Your task to perform on an android device: show emergency info Image 0: 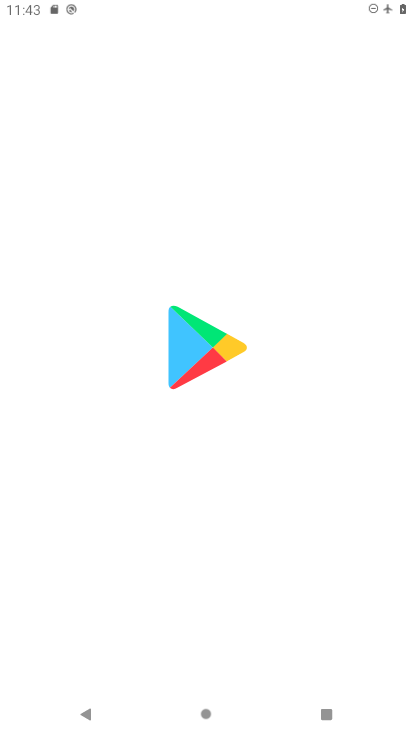
Step 0: drag from (238, 716) to (238, 20)
Your task to perform on an android device: show emergency info Image 1: 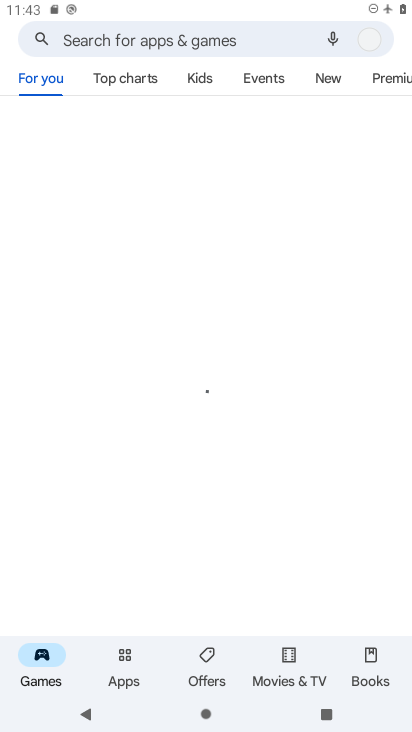
Step 1: press home button
Your task to perform on an android device: show emergency info Image 2: 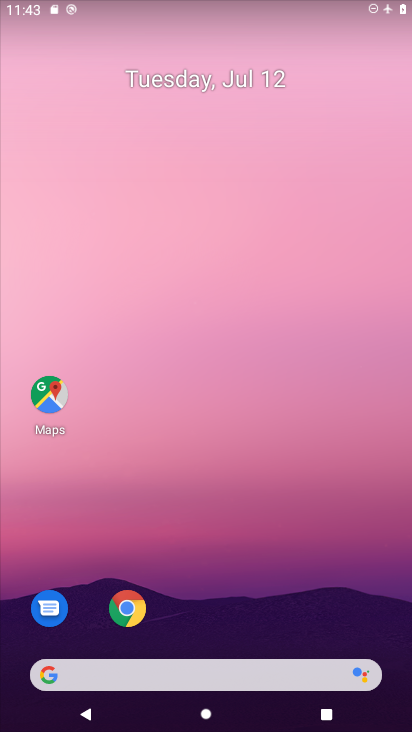
Step 2: drag from (227, 653) to (227, 85)
Your task to perform on an android device: show emergency info Image 3: 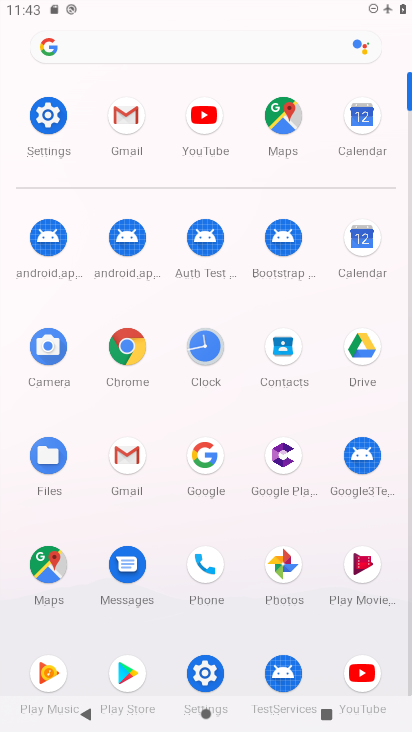
Step 3: click (49, 112)
Your task to perform on an android device: show emergency info Image 4: 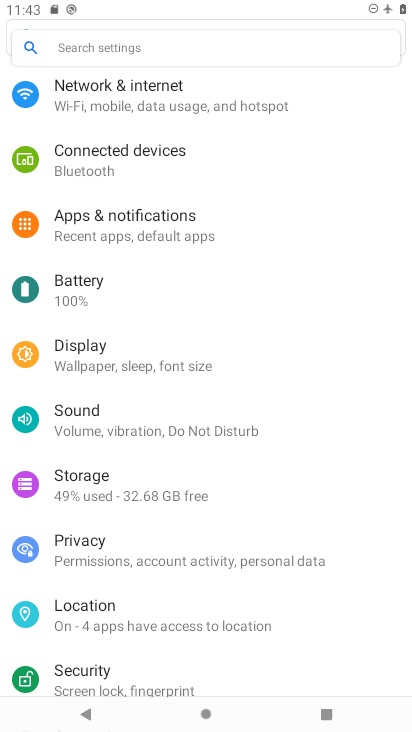
Step 4: drag from (286, 664) to (302, 285)
Your task to perform on an android device: show emergency info Image 5: 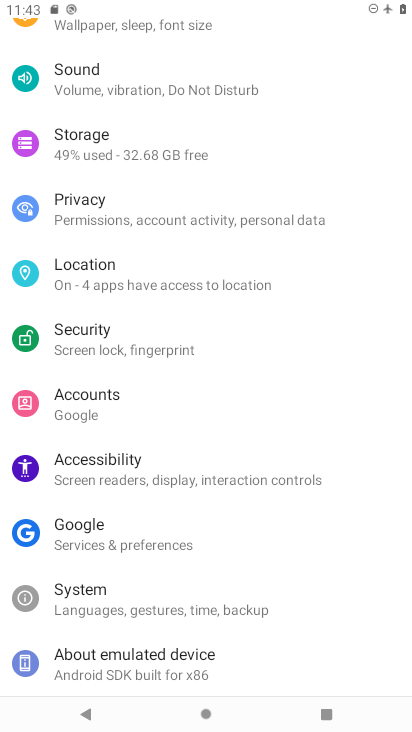
Step 5: drag from (124, 651) to (99, 388)
Your task to perform on an android device: show emergency info Image 6: 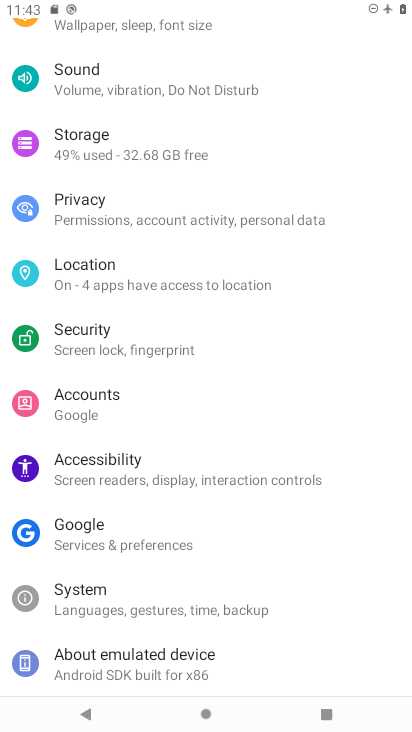
Step 6: click (144, 649)
Your task to perform on an android device: show emergency info Image 7: 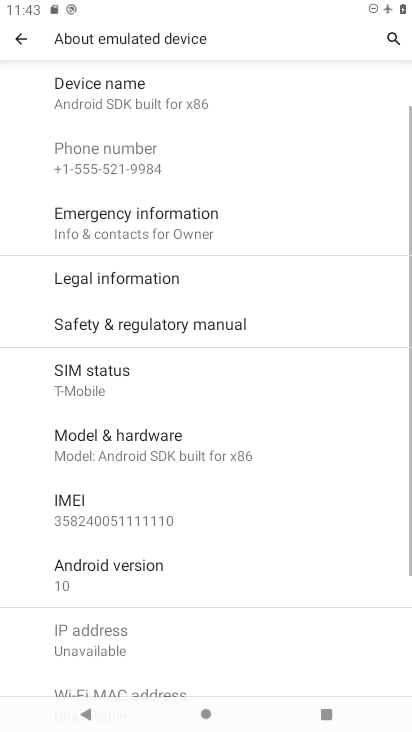
Step 7: click (92, 218)
Your task to perform on an android device: show emergency info Image 8: 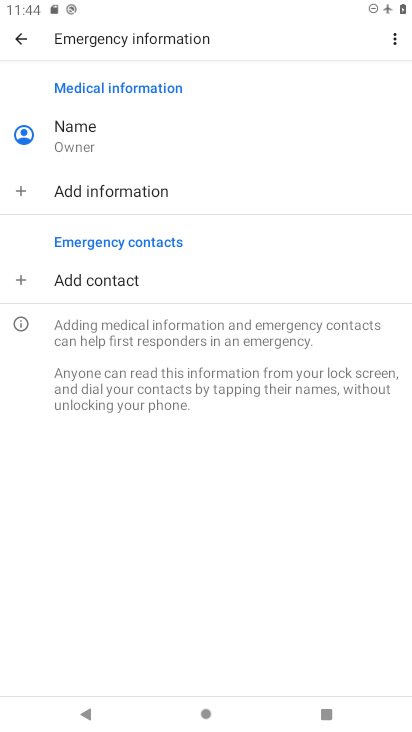
Step 8: task complete